Your task to perform on an android device: What's on my calendar today? Image 0: 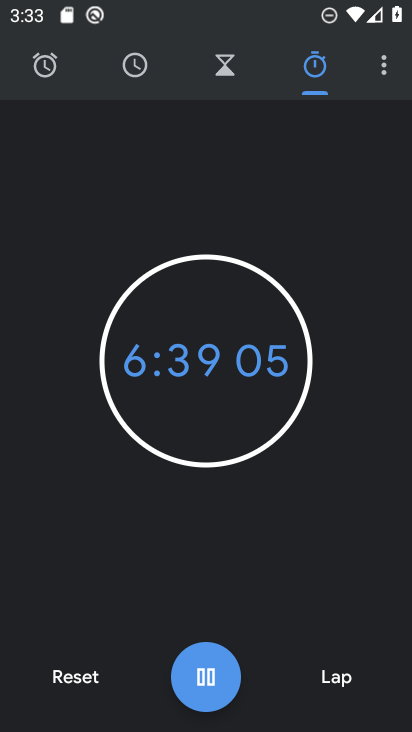
Step 0: click (69, 680)
Your task to perform on an android device: What's on my calendar today? Image 1: 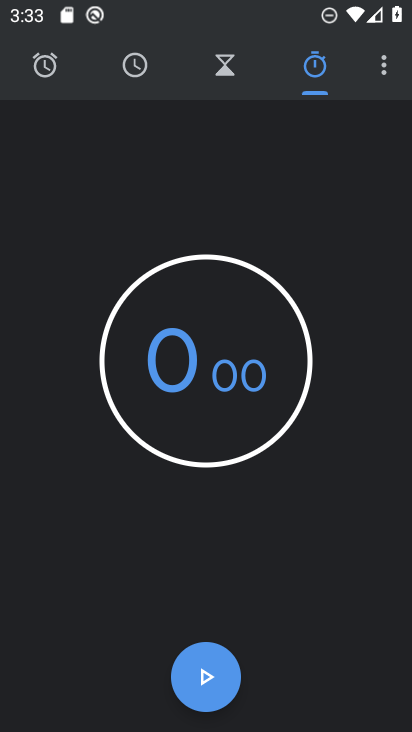
Step 1: press home button
Your task to perform on an android device: What's on my calendar today? Image 2: 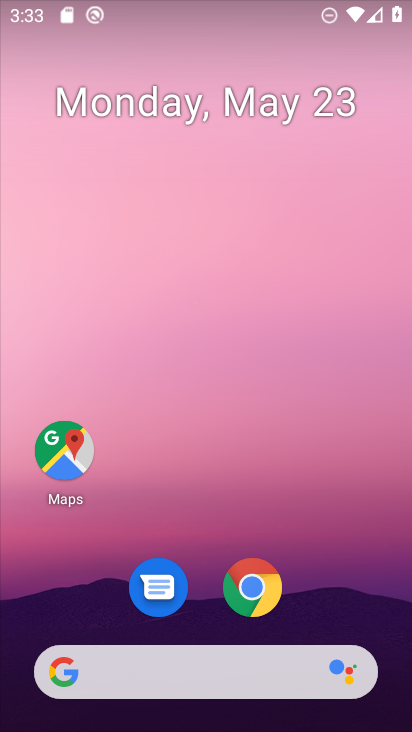
Step 2: drag from (207, 603) to (232, 147)
Your task to perform on an android device: What's on my calendar today? Image 3: 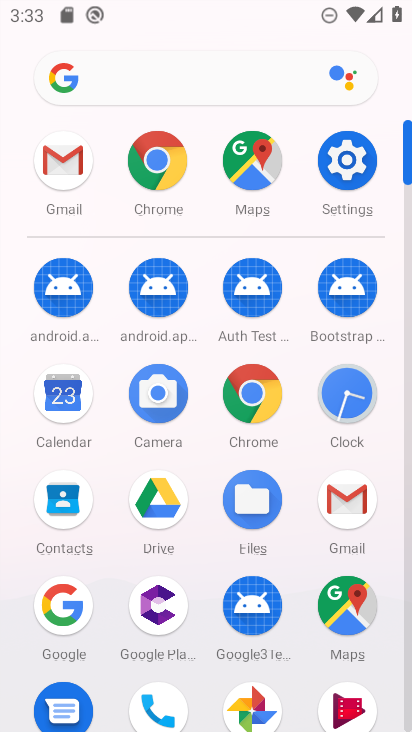
Step 3: click (68, 403)
Your task to perform on an android device: What's on my calendar today? Image 4: 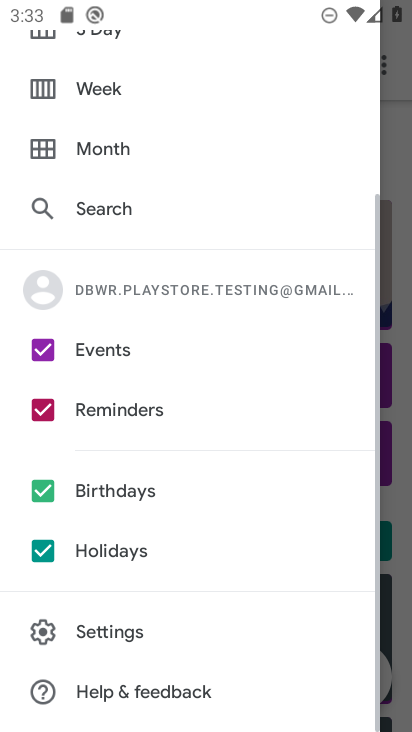
Step 4: drag from (105, 120) to (59, 706)
Your task to perform on an android device: What's on my calendar today? Image 5: 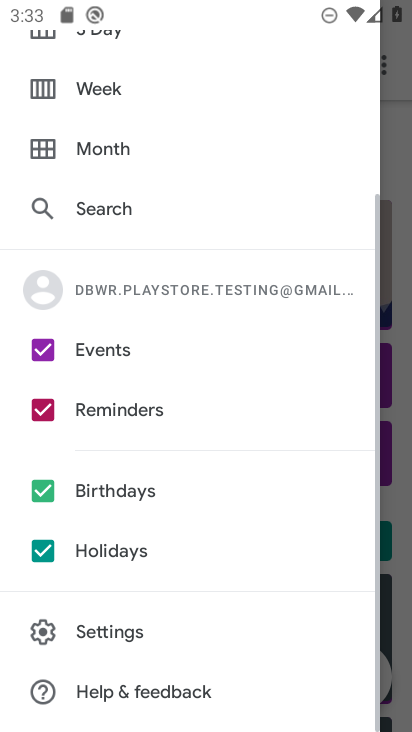
Step 5: drag from (129, 100) to (128, 613)
Your task to perform on an android device: What's on my calendar today? Image 6: 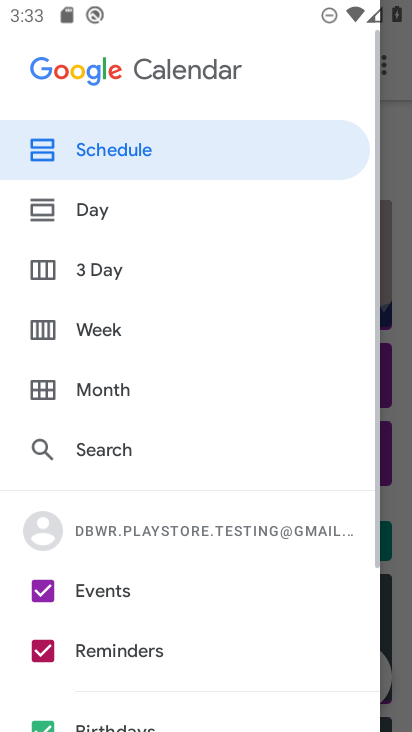
Step 6: click (88, 209)
Your task to perform on an android device: What's on my calendar today? Image 7: 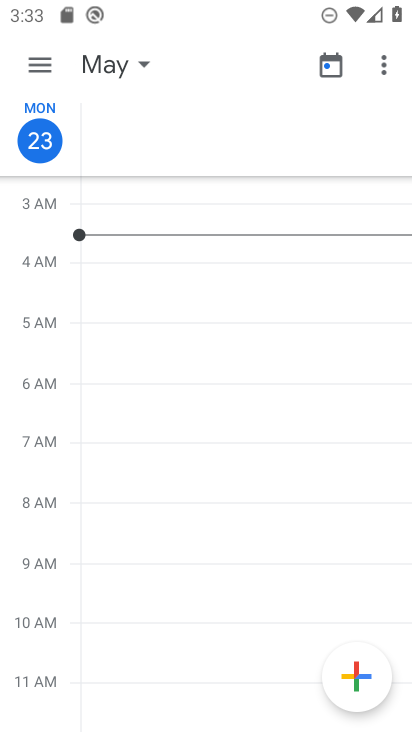
Step 7: task complete